Your task to perform on an android device: set an alarm Image 0: 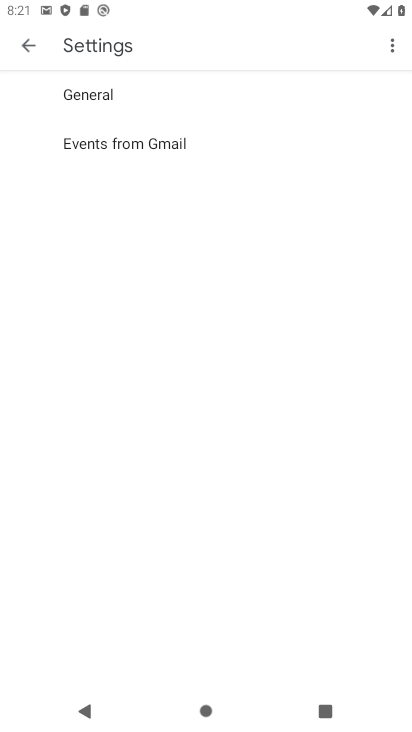
Step 0: press home button
Your task to perform on an android device: set an alarm Image 1: 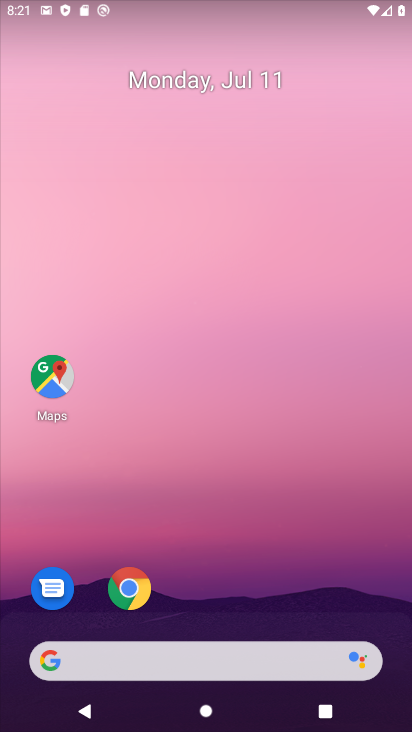
Step 1: drag from (225, 666) to (374, 133)
Your task to perform on an android device: set an alarm Image 2: 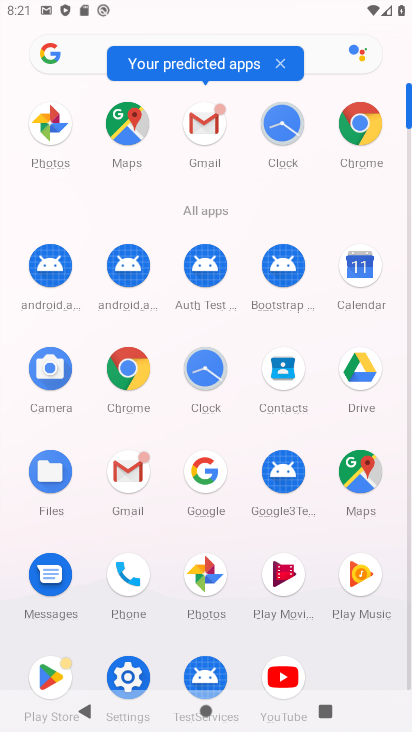
Step 2: click (203, 363)
Your task to perform on an android device: set an alarm Image 3: 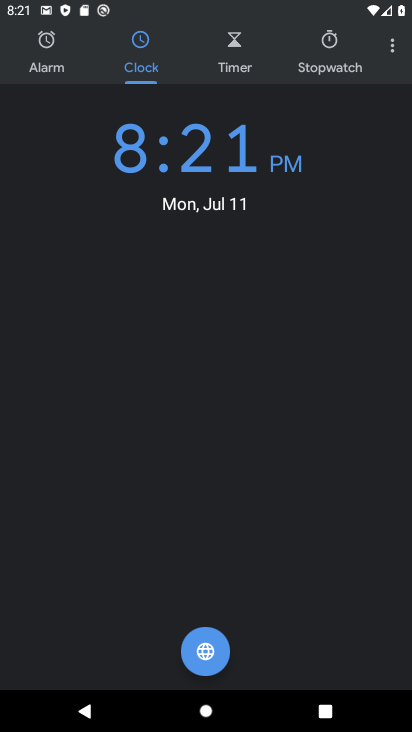
Step 3: click (52, 65)
Your task to perform on an android device: set an alarm Image 4: 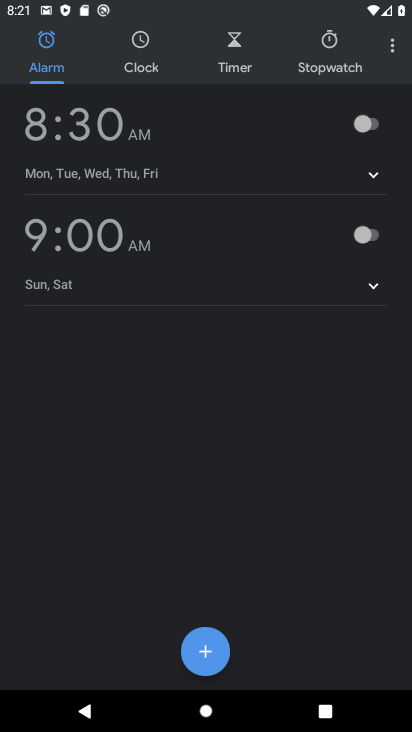
Step 4: click (371, 121)
Your task to perform on an android device: set an alarm Image 5: 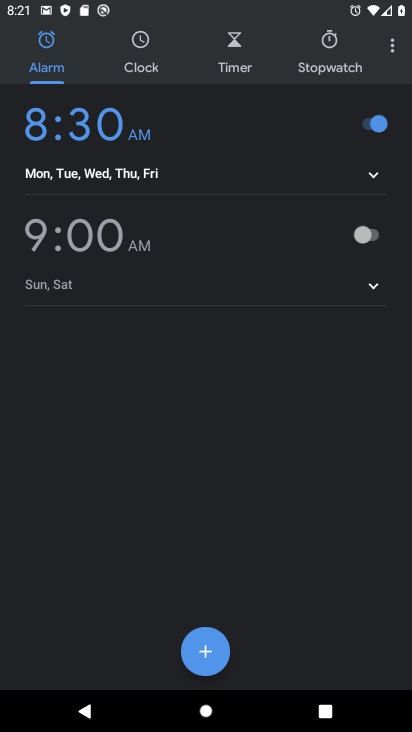
Step 5: task complete